Your task to perform on an android device: toggle translation in the chrome app Image 0: 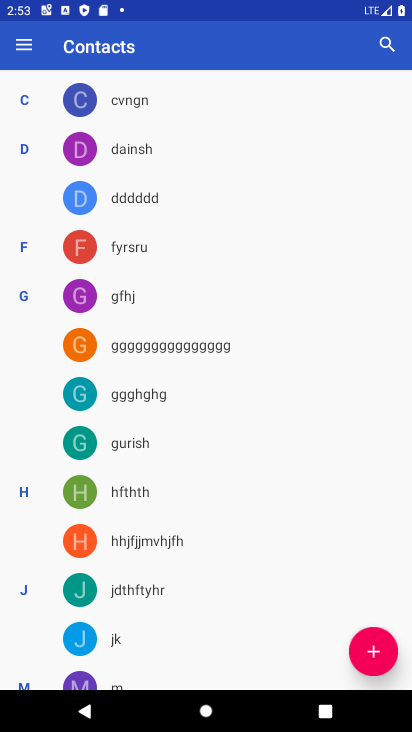
Step 0: press home button
Your task to perform on an android device: toggle translation in the chrome app Image 1: 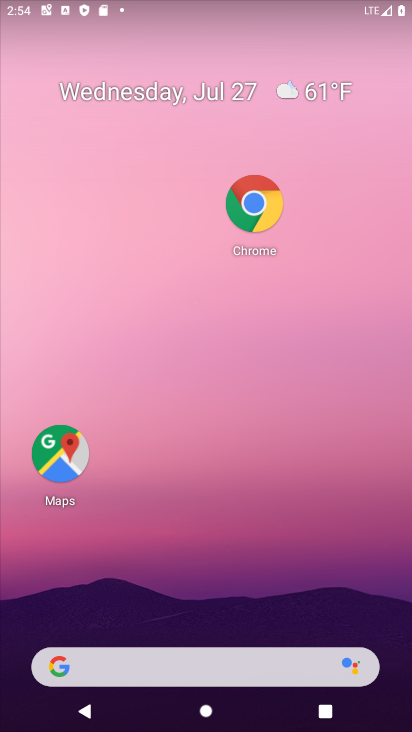
Step 1: click (247, 224)
Your task to perform on an android device: toggle translation in the chrome app Image 2: 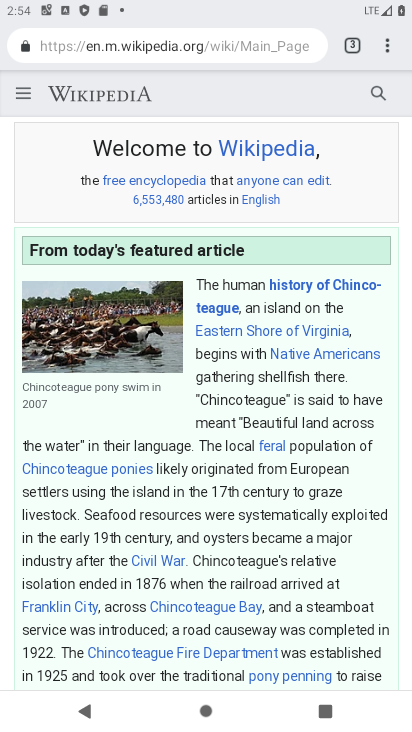
Step 2: click (384, 45)
Your task to perform on an android device: toggle translation in the chrome app Image 3: 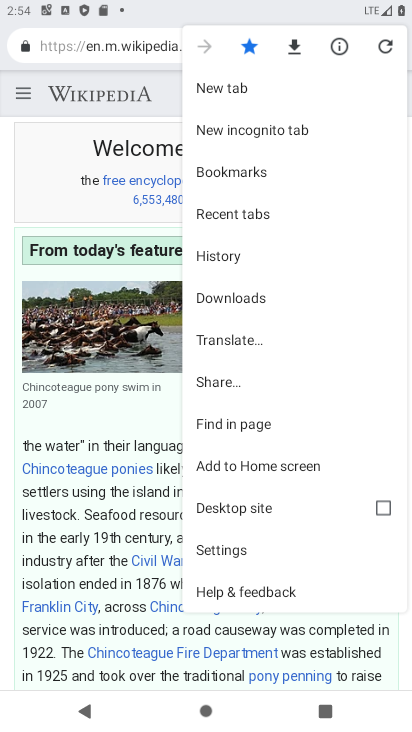
Step 3: click (236, 543)
Your task to perform on an android device: toggle translation in the chrome app Image 4: 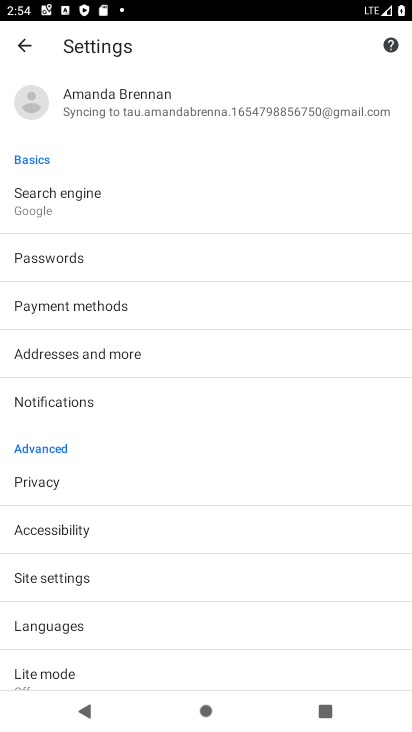
Step 4: click (62, 629)
Your task to perform on an android device: toggle translation in the chrome app Image 5: 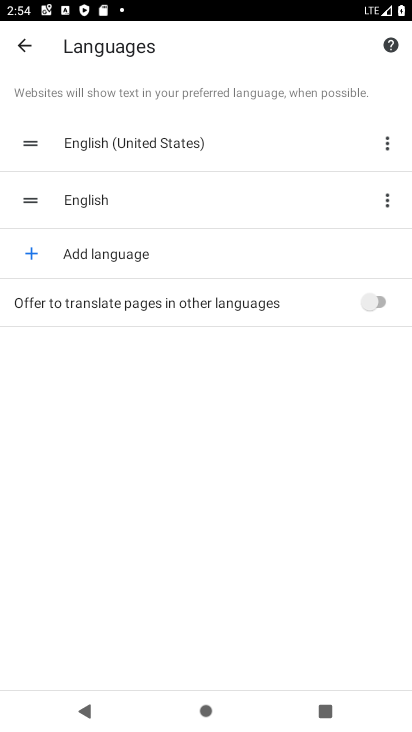
Step 5: click (381, 307)
Your task to perform on an android device: toggle translation in the chrome app Image 6: 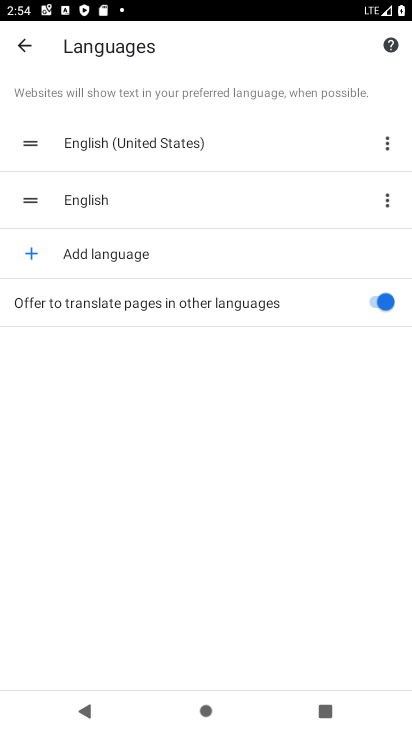
Step 6: task complete